Your task to perform on an android device: add a contact Image 0: 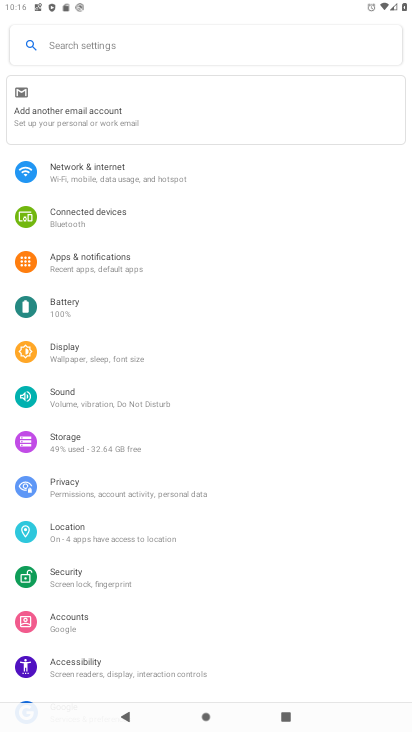
Step 0: press home button
Your task to perform on an android device: add a contact Image 1: 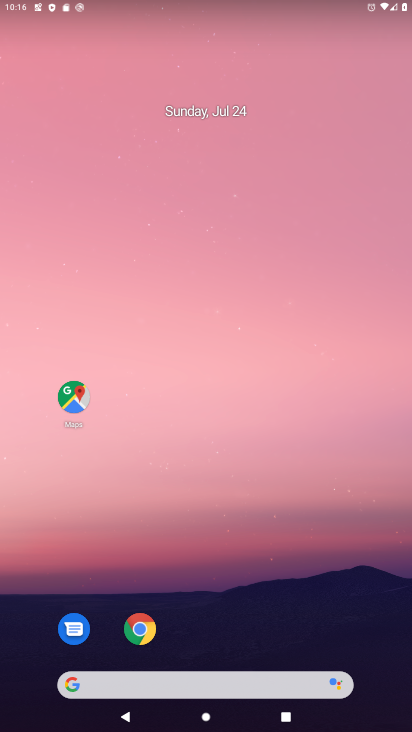
Step 1: drag from (192, 599) to (311, 100)
Your task to perform on an android device: add a contact Image 2: 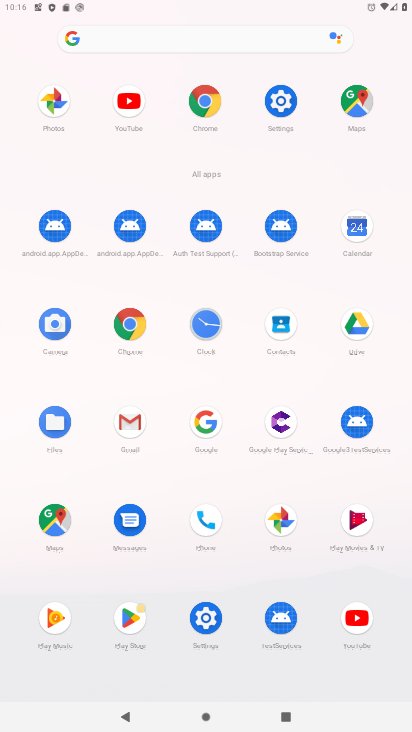
Step 2: click (278, 318)
Your task to perform on an android device: add a contact Image 3: 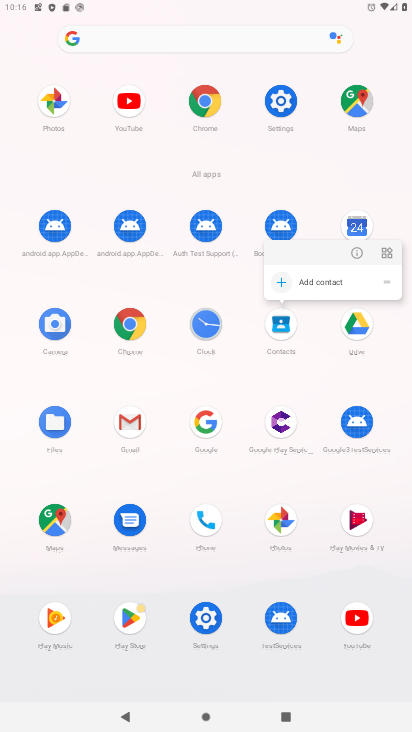
Step 3: click (284, 283)
Your task to perform on an android device: add a contact Image 4: 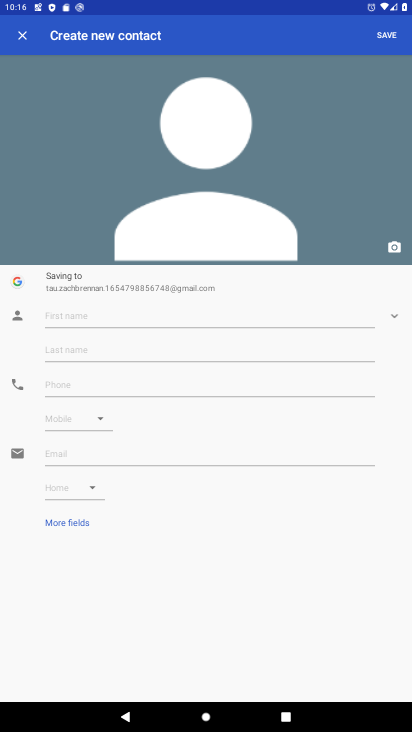
Step 4: click (100, 322)
Your task to perform on an android device: add a contact Image 5: 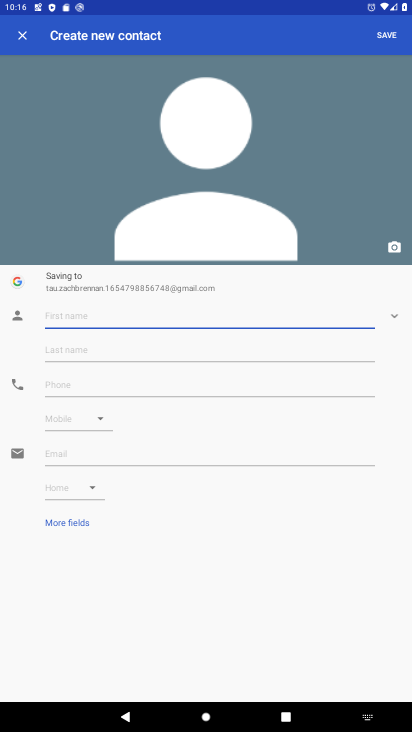
Step 5: type "ssaxsa"
Your task to perform on an android device: add a contact Image 6: 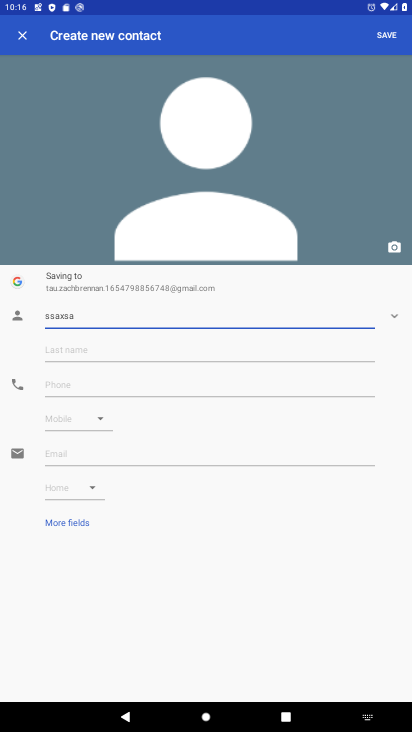
Step 6: click (71, 391)
Your task to perform on an android device: add a contact Image 7: 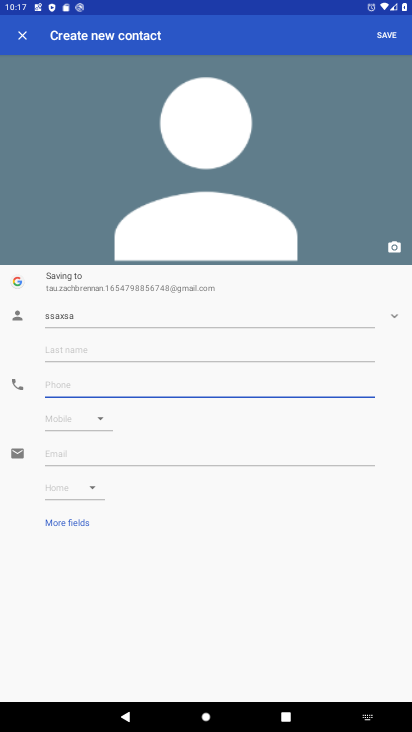
Step 7: type "989708678"
Your task to perform on an android device: add a contact Image 8: 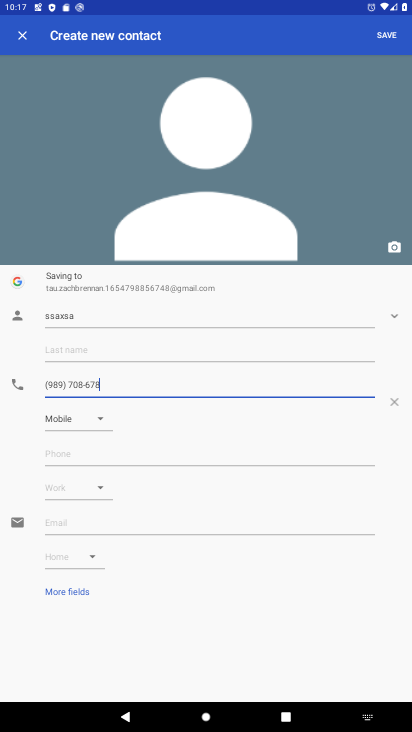
Step 8: click (390, 31)
Your task to perform on an android device: add a contact Image 9: 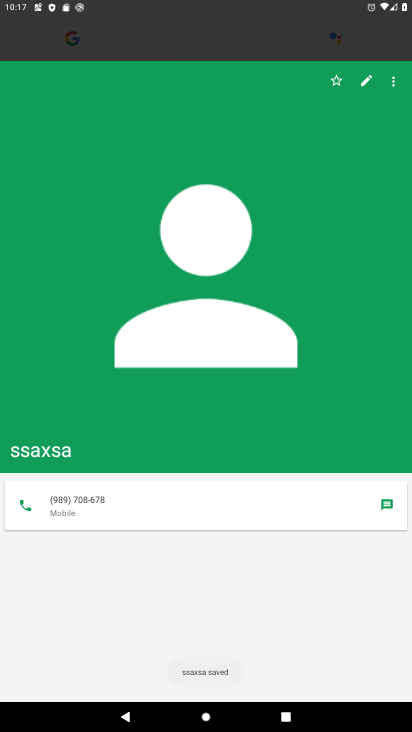
Step 9: task complete